Your task to perform on an android device: When is my next meeting? Image 0: 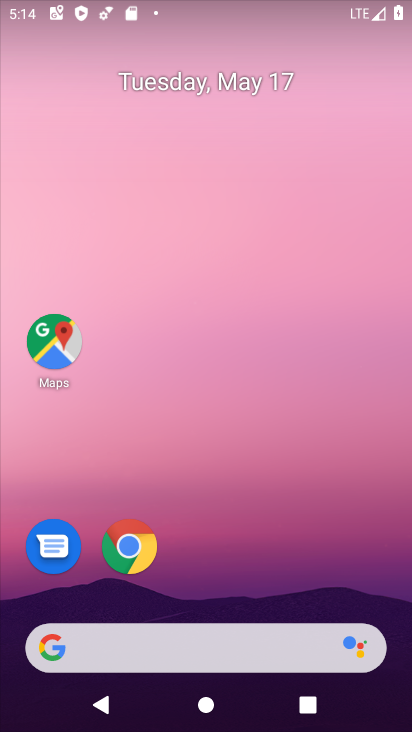
Step 0: drag from (254, 576) to (212, 48)
Your task to perform on an android device: When is my next meeting? Image 1: 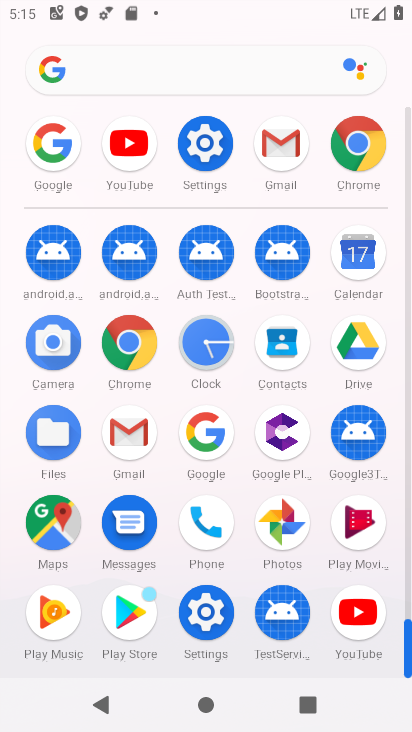
Step 1: click (371, 272)
Your task to perform on an android device: When is my next meeting? Image 2: 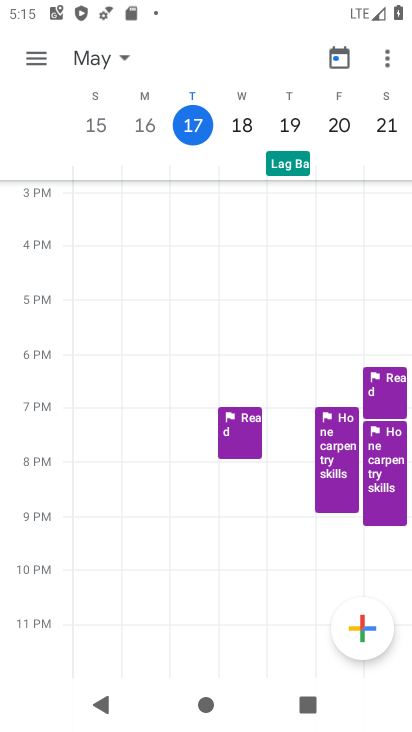
Step 2: click (91, 63)
Your task to perform on an android device: When is my next meeting? Image 3: 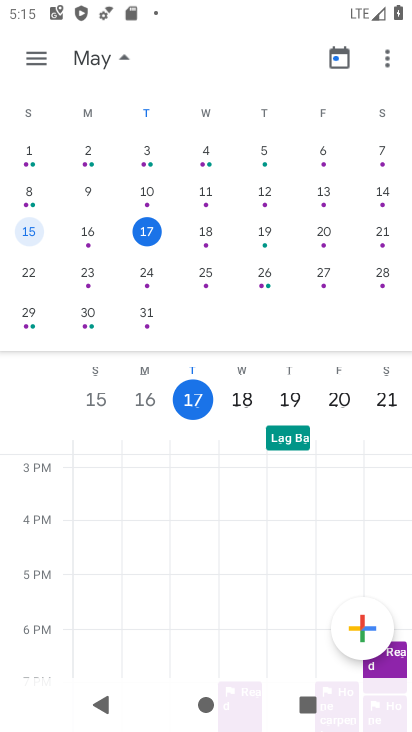
Step 3: drag from (288, 235) to (2, 225)
Your task to perform on an android device: When is my next meeting? Image 4: 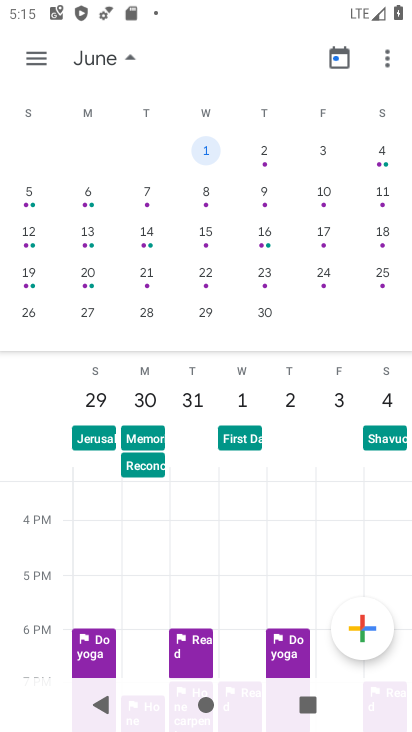
Step 4: click (93, 201)
Your task to perform on an android device: When is my next meeting? Image 5: 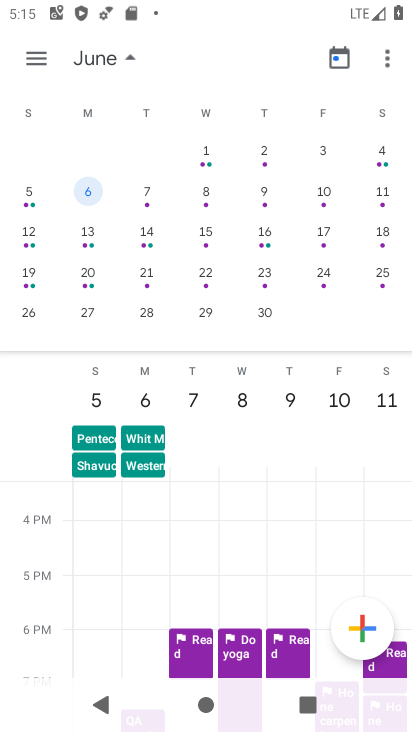
Step 5: click (39, 57)
Your task to perform on an android device: When is my next meeting? Image 6: 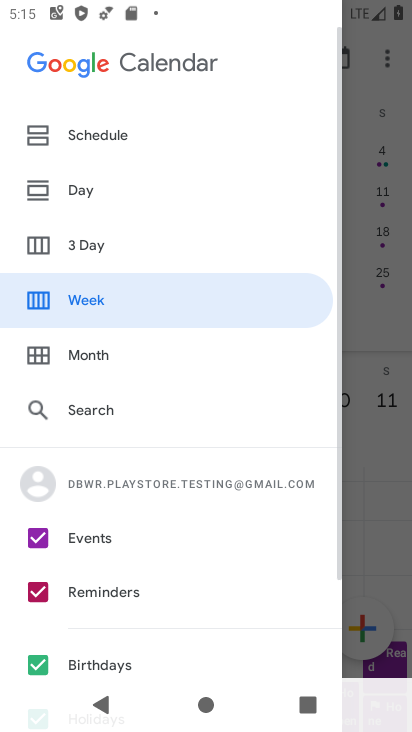
Step 6: click (89, 144)
Your task to perform on an android device: When is my next meeting? Image 7: 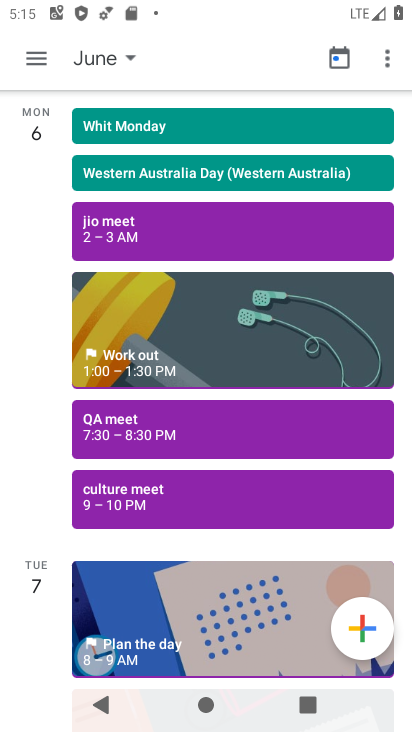
Step 7: task complete